Your task to perform on an android device: Set the phone to "Do not disturb". Image 0: 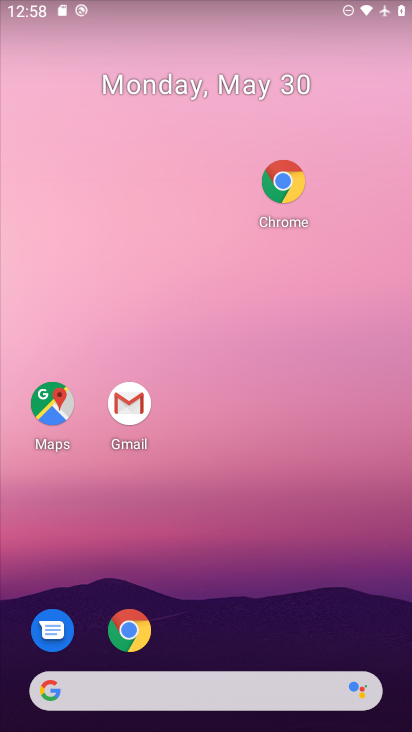
Step 0: drag from (253, 660) to (173, 147)
Your task to perform on an android device: Set the phone to "Do not disturb". Image 1: 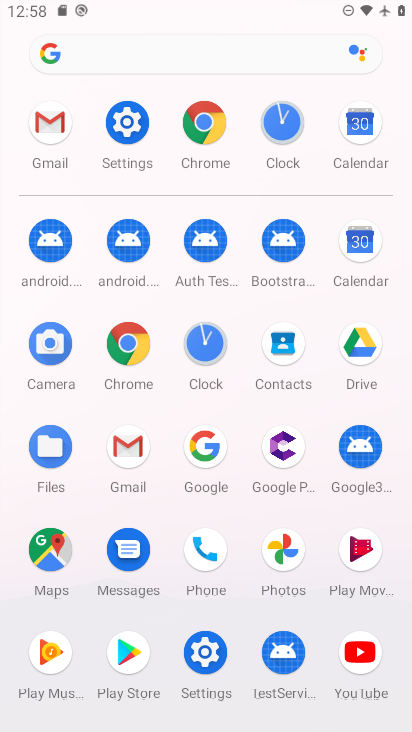
Step 1: click (201, 662)
Your task to perform on an android device: Set the phone to "Do not disturb". Image 2: 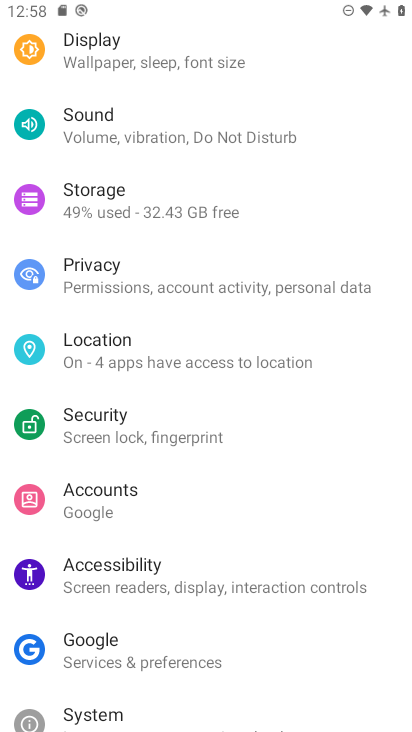
Step 2: click (104, 124)
Your task to perform on an android device: Set the phone to "Do not disturb". Image 3: 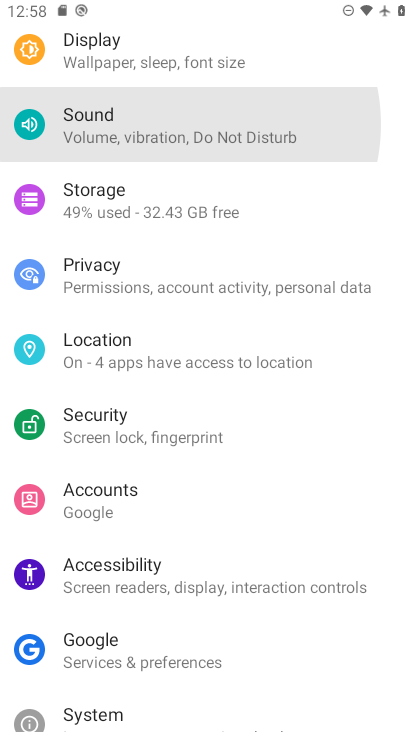
Step 3: click (108, 122)
Your task to perform on an android device: Set the phone to "Do not disturb". Image 4: 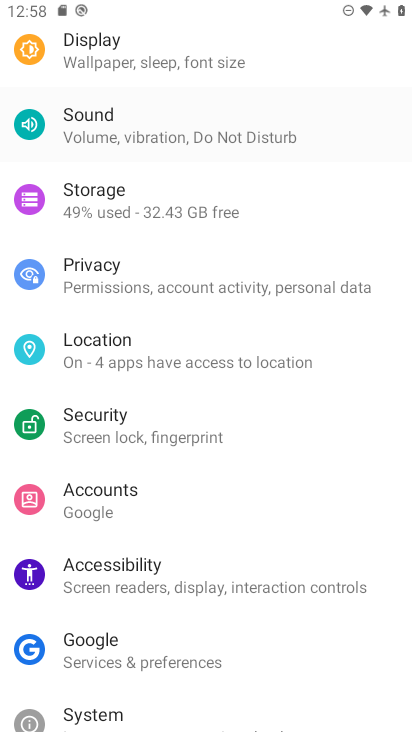
Step 4: click (108, 122)
Your task to perform on an android device: Set the phone to "Do not disturb". Image 5: 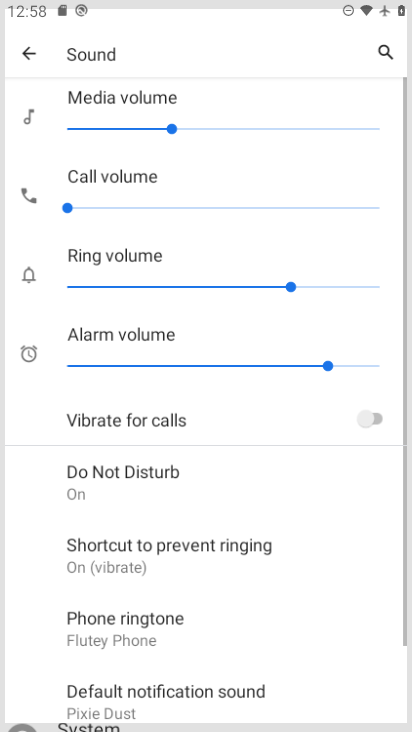
Step 5: click (109, 121)
Your task to perform on an android device: Set the phone to "Do not disturb". Image 6: 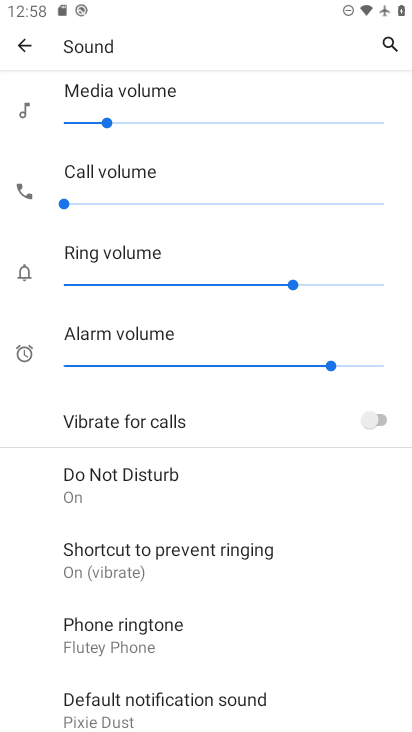
Step 6: click (101, 475)
Your task to perform on an android device: Set the phone to "Do not disturb". Image 7: 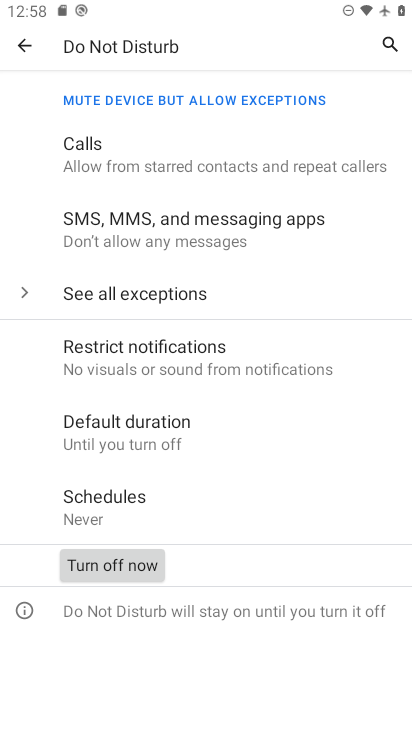
Step 7: click (112, 568)
Your task to perform on an android device: Set the phone to "Do not disturb". Image 8: 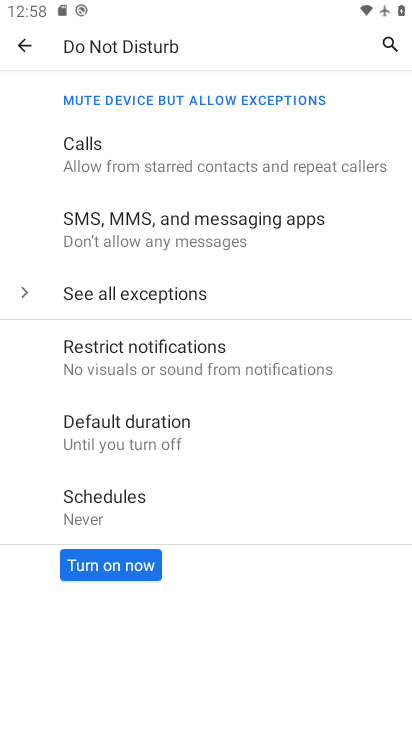
Step 8: task complete